Your task to perform on an android device: change keyboard looks Image 0: 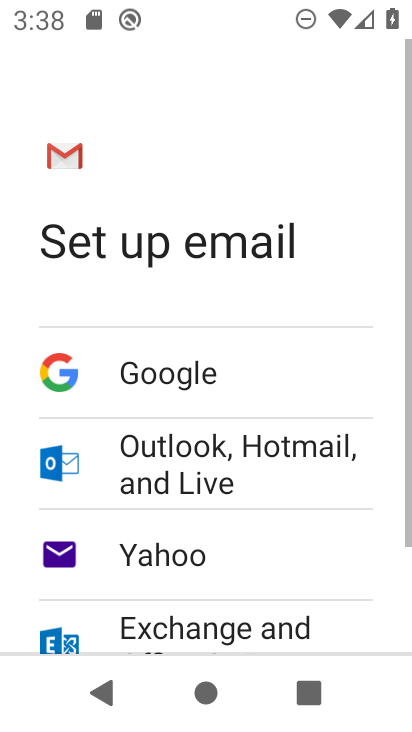
Step 0: press back button
Your task to perform on an android device: change keyboard looks Image 1: 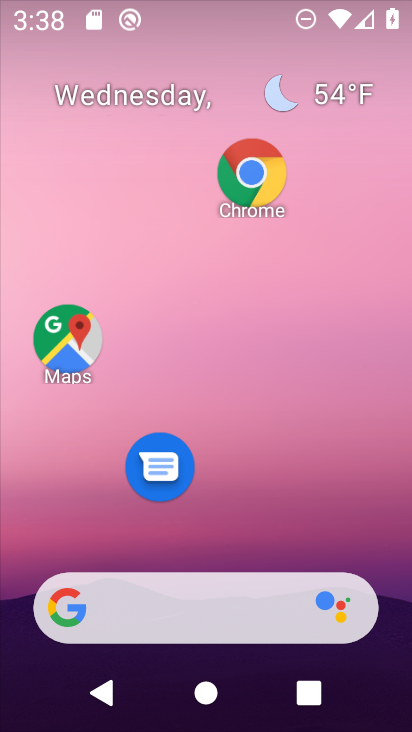
Step 1: drag from (253, 500) to (253, 19)
Your task to perform on an android device: change keyboard looks Image 2: 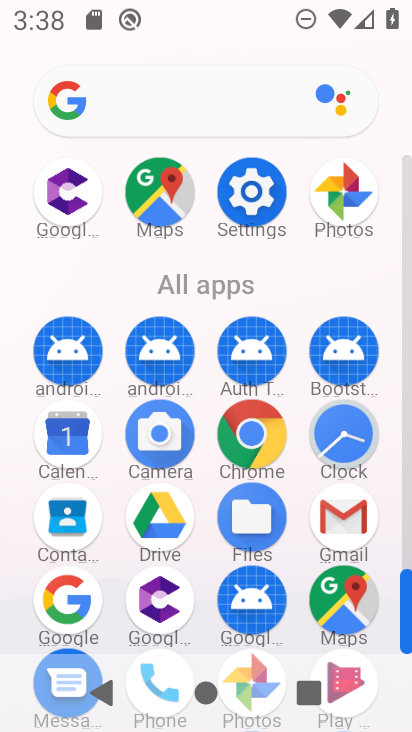
Step 2: click (252, 201)
Your task to perform on an android device: change keyboard looks Image 3: 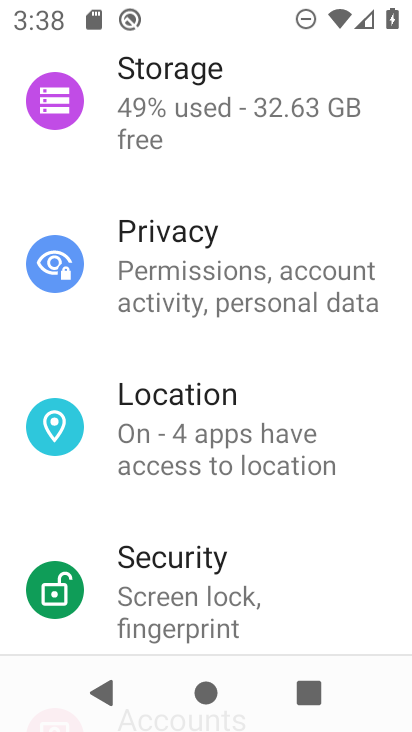
Step 3: drag from (196, 610) to (256, 65)
Your task to perform on an android device: change keyboard looks Image 4: 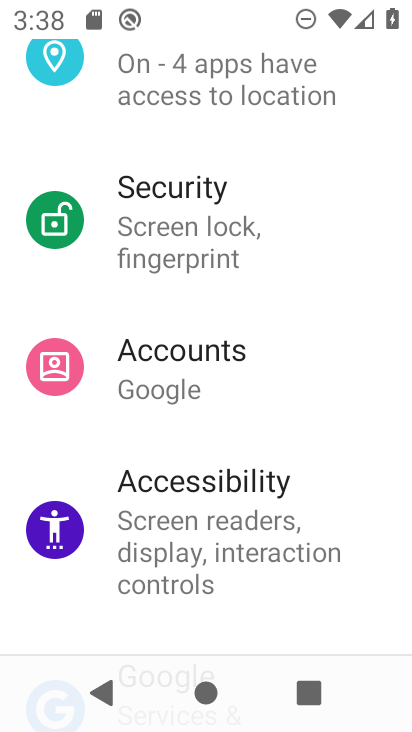
Step 4: drag from (200, 607) to (247, 127)
Your task to perform on an android device: change keyboard looks Image 5: 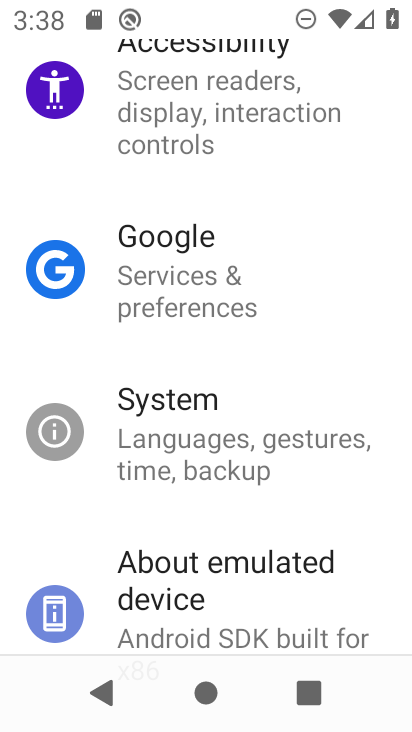
Step 5: click (177, 450)
Your task to perform on an android device: change keyboard looks Image 6: 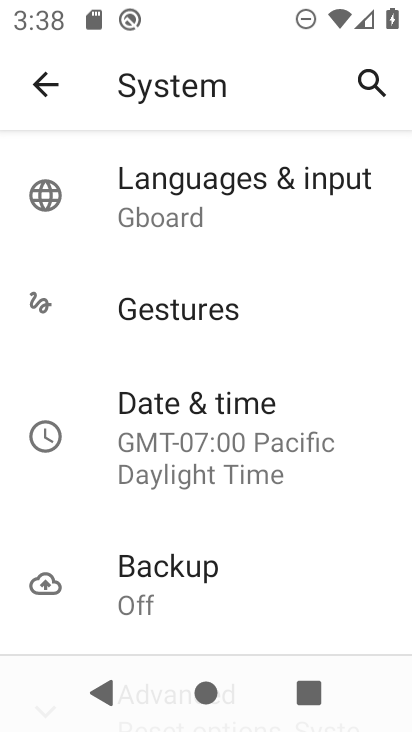
Step 6: click (186, 198)
Your task to perform on an android device: change keyboard looks Image 7: 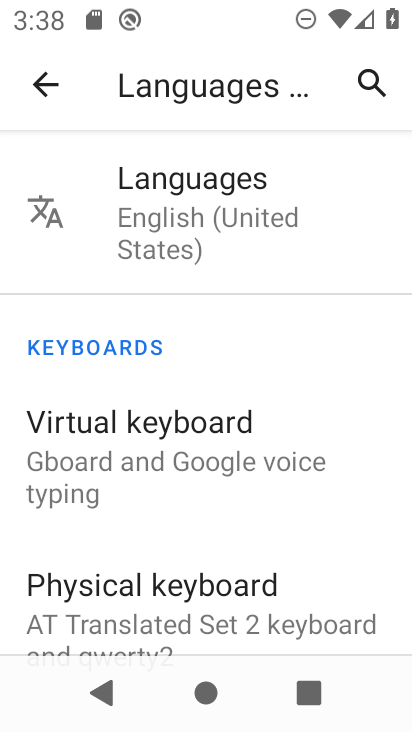
Step 7: drag from (228, 614) to (200, 75)
Your task to perform on an android device: change keyboard looks Image 8: 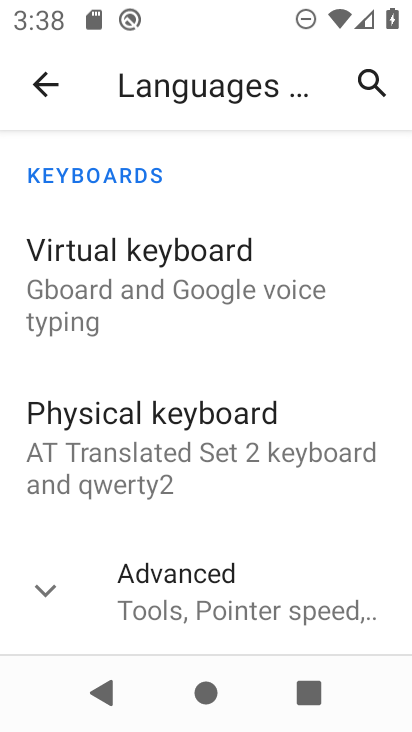
Step 8: click (195, 597)
Your task to perform on an android device: change keyboard looks Image 9: 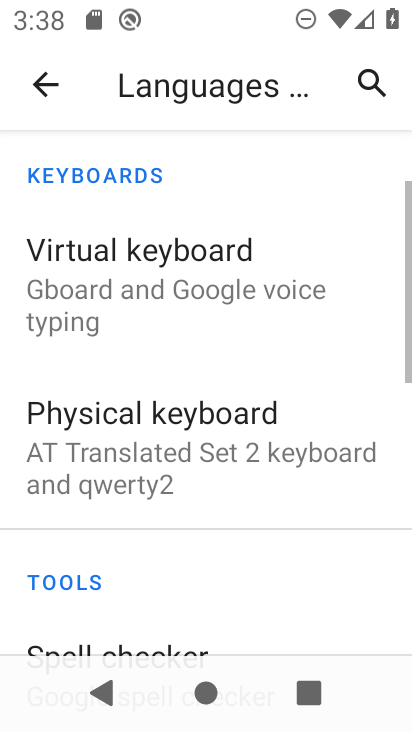
Step 9: drag from (201, 590) to (273, 148)
Your task to perform on an android device: change keyboard looks Image 10: 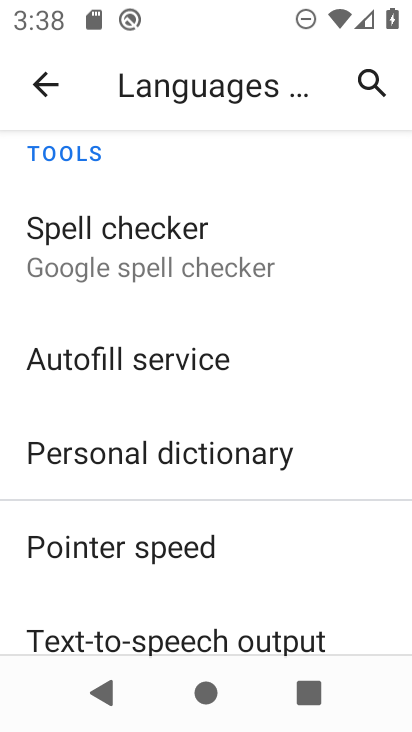
Step 10: drag from (207, 260) to (222, 731)
Your task to perform on an android device: change keyboard looks Image 11: 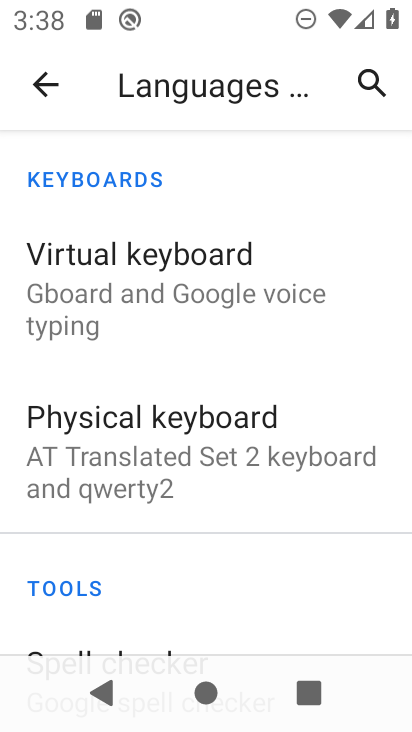
Step 11: click (139, 308)
Your task to perform on an android device: change keyboard looks Image 12: 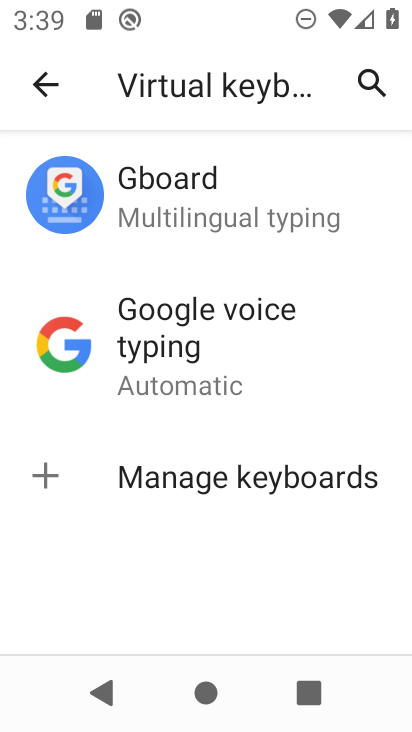
Step 12: click (189, 177)
Your task to perform on an android device: change keyboard looks Image 13: 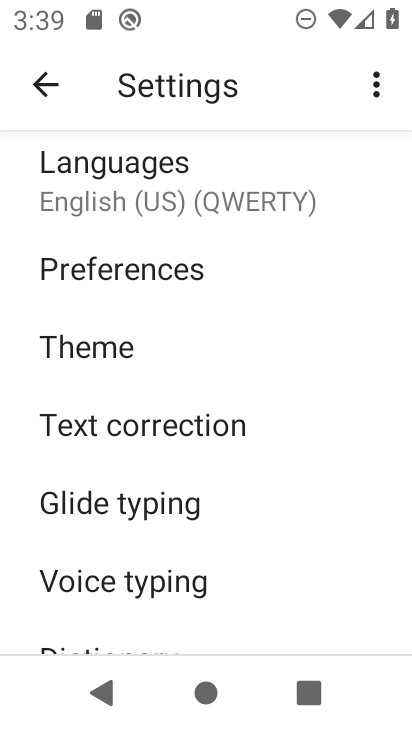
Step 13: click (95, 347)
Your task to perform on an android device: change keyboard looks Image 14: 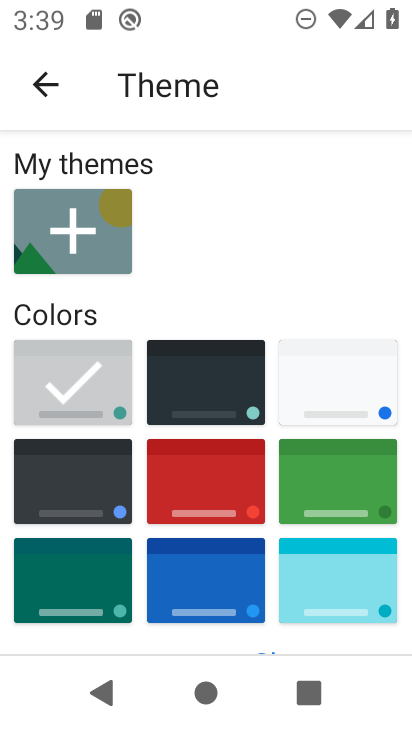
Step 14: click (213, 475)
Your task to perform on an android device: change keyboard looks Image 15: 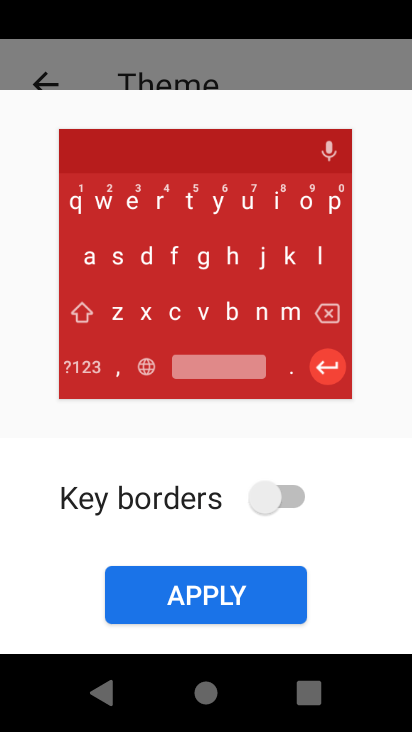
Step 15: click (205, 592)
Your task to perform on an android device: change keyboard looks Image 16: 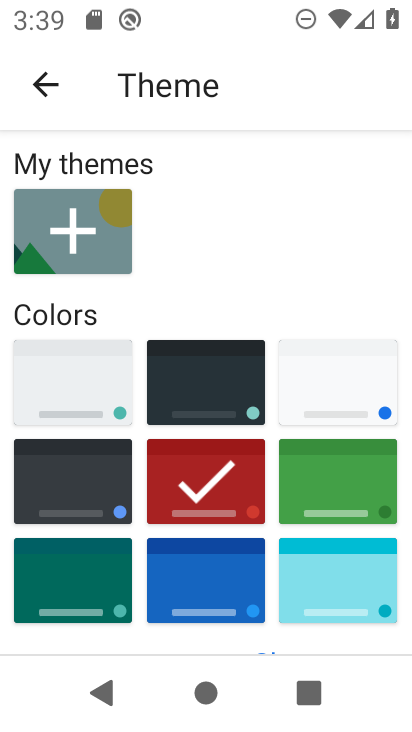
Step 16: task complete